Your task to perform on an android device: Open maps Image 0: 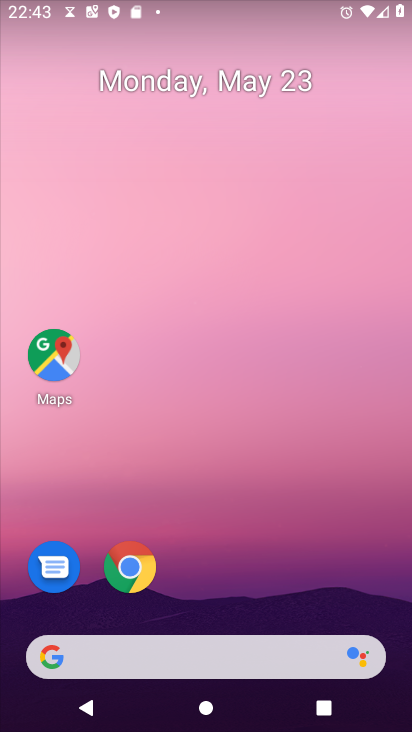
Step 0: click (44, 354)
Your task to perform on an android device: Open maps Image 1: 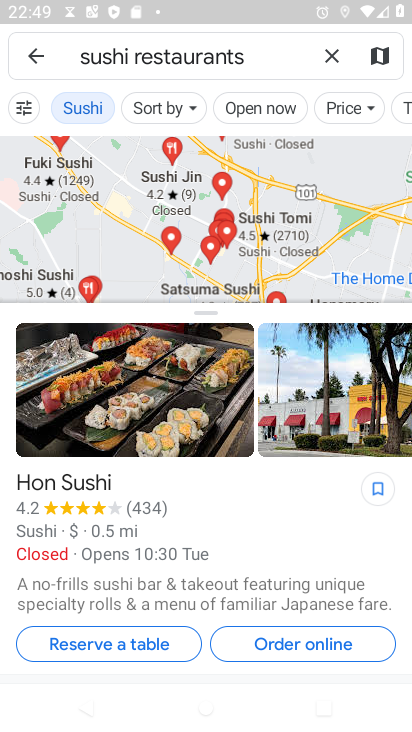
Step 1: task complete